Your task to perform on an android device: turn on priority inbox in the gmail app Image 0: 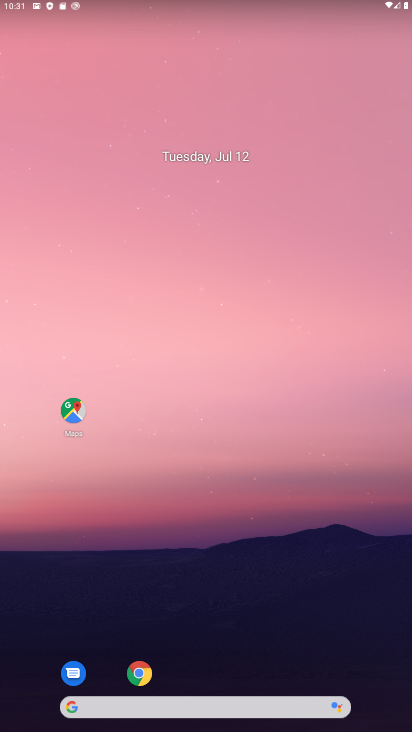
Step 0: drag from (228, 675) to (322, 116)
Your task to perform on an android device: turn on priority inbox in the gmail app Image 1: 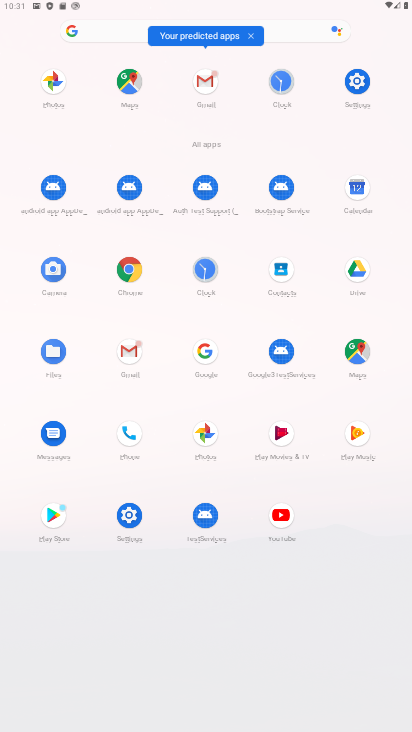
Step 1: click (127, 351)
Your task to perform on an android device: turn on priority inbox in the gmail app Image 2: 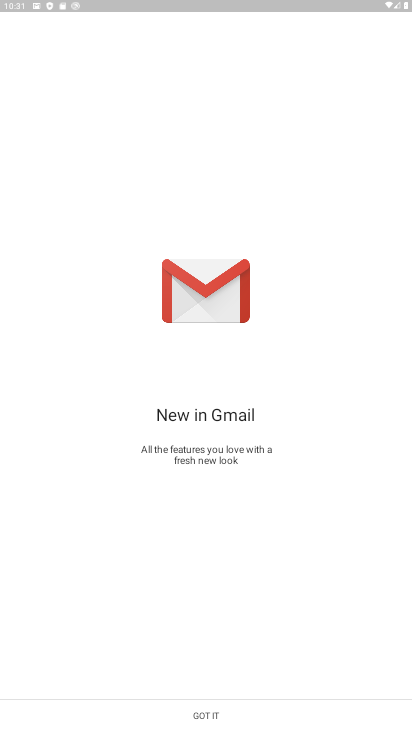
Step 2: click (186, 714)
Your task to perform on an android device: turn on priority inbox in the gmail app Image 3: 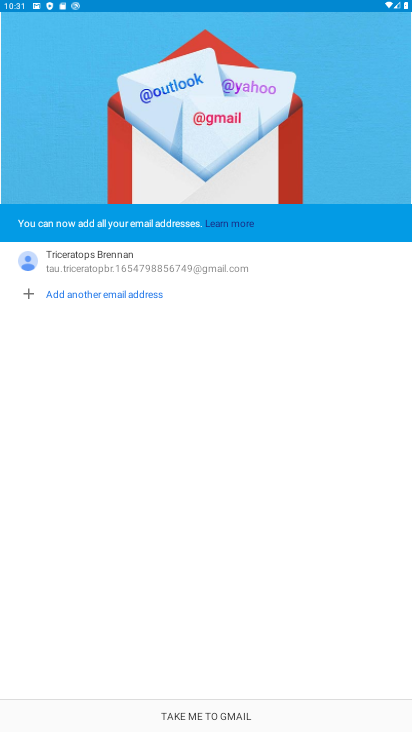
Step 3: click (239, 711)
Your task to perform on an android device: turn on priority inbox in the gmail app Image 4: 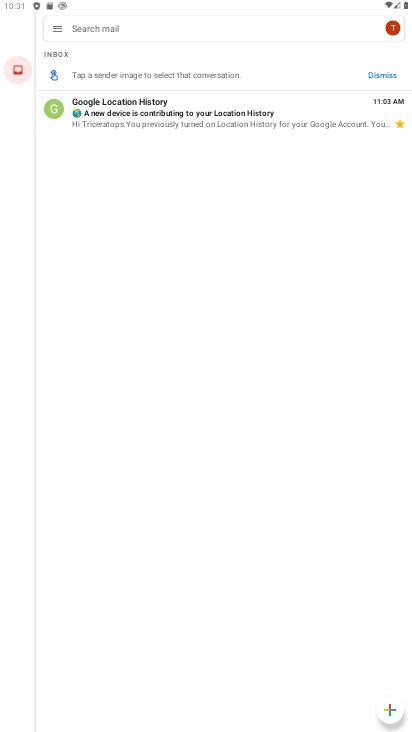
Step 4: click (56, 35)
Your task to perform on an android device: turn on priority inbox in the gmail app Image 5: 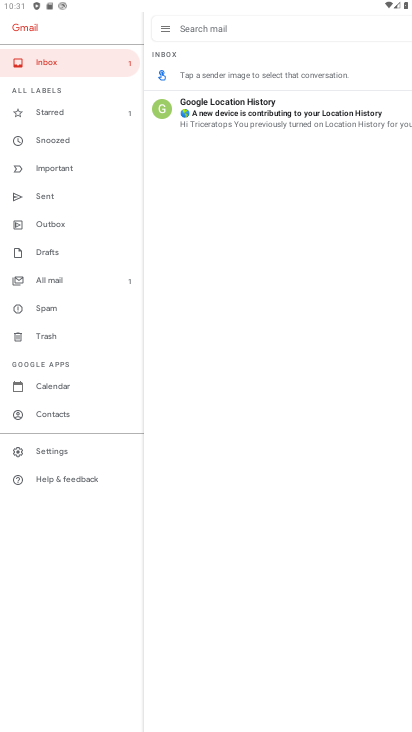
Step 5: click (50, 456)
Your task to perform on an android device: turn on priority inbox in the gmail app Image 6: 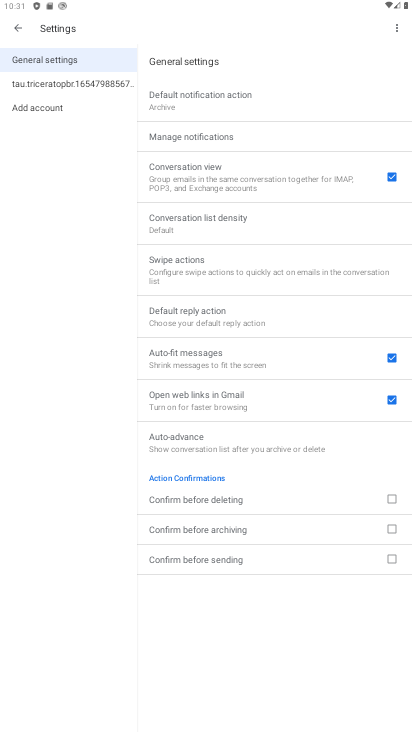
Step 6: click (81, 81)
Your task to perform on an android device: turn on priority inbox in the gmail app Image 7: 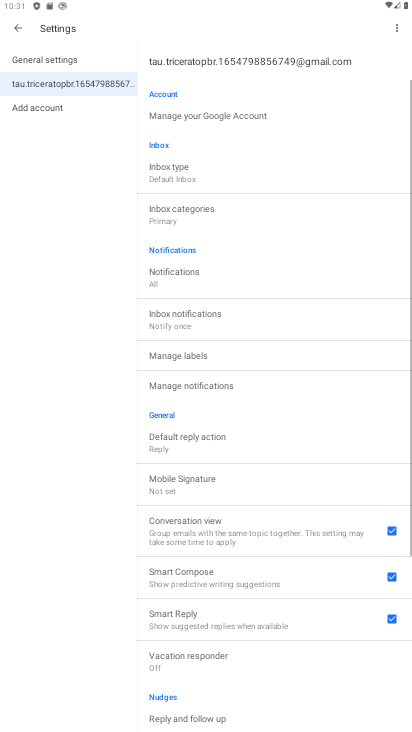
Step 7: click (227, 177)
Your task to perform on an android device: turn on priority inbox in the gmail app Image 8: 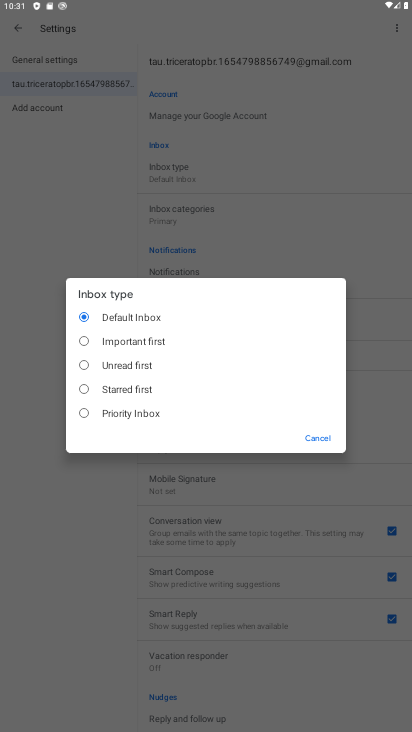
Step 8: click (184, 414)
Your task to perform on an android device: turn on priority inbox in the gmail app Image 9: 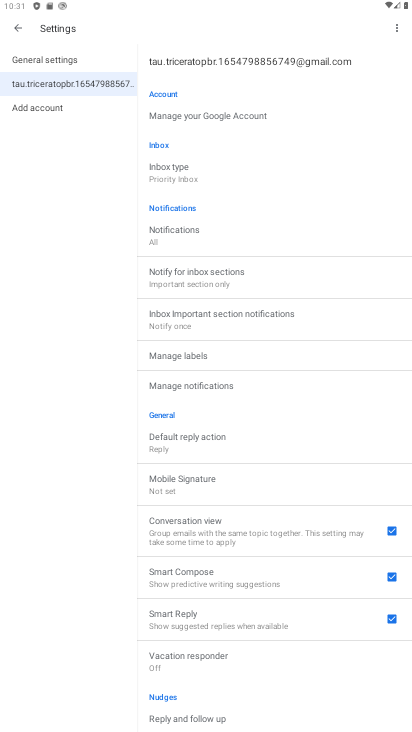
Step 9: task complete